Your task to perform on an android device: open app "PUBG MOBILE" (install if not already installed) and go to login screen Image 0: 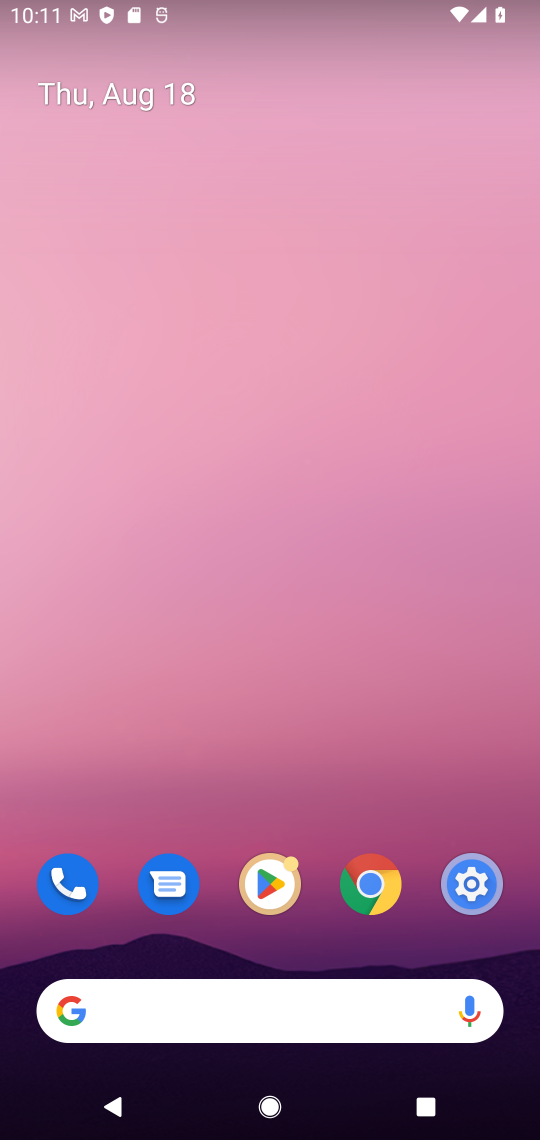
Step 0: drag from (295, 1011) to (371, 280)
Your task to perform on an android device: open app "PUBG MOBILE" (install if not already installed) and go to login screen Image 1: 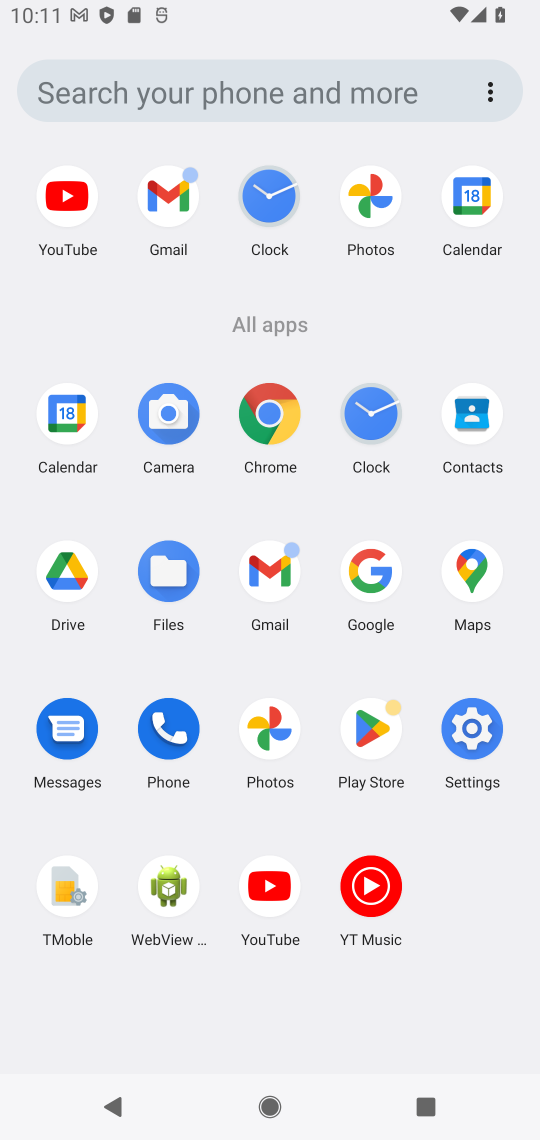
Step 1: click (382, 715)
Your task to perform on an android device: open app "PUBG MOBILE" (install if not already installed) and go to login screen Image 2: 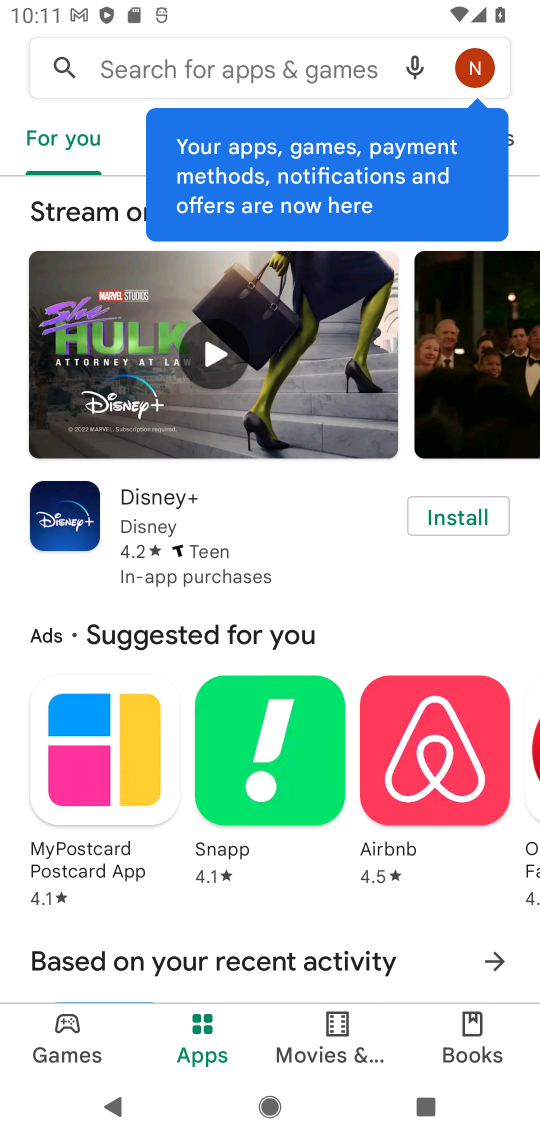
Step 2: click (317, 70)
Your task to perform on an android device: open app "PUBG MOBILE" (install if not already installed) and go to login screen Image 3: 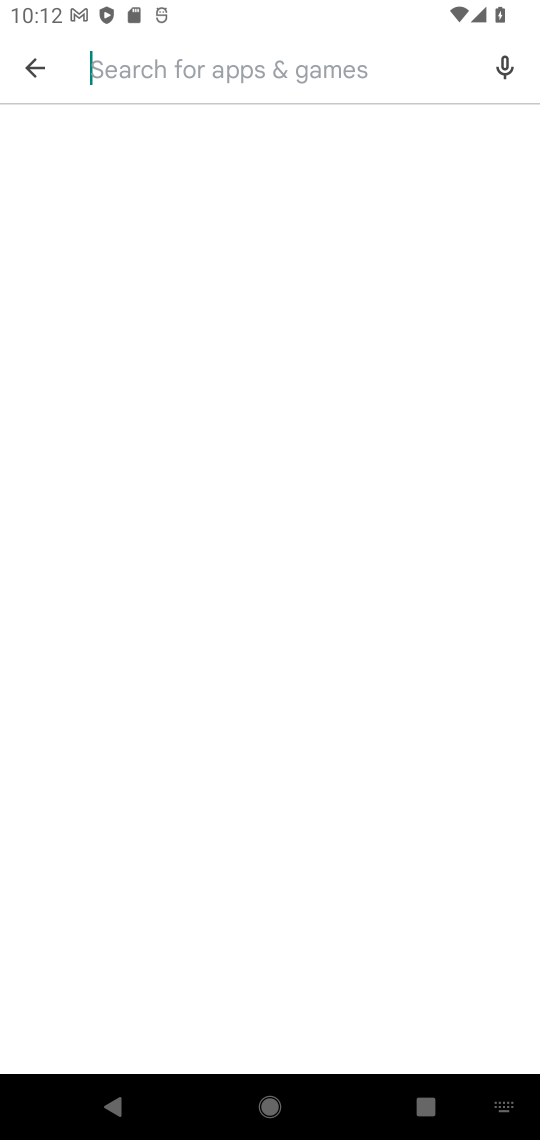
Step 3: type "PUBG MOBILE"
Your task to perform on an android device: open app "PUBG MOBILE" (install if not already installed) and go to login screen Image 4: 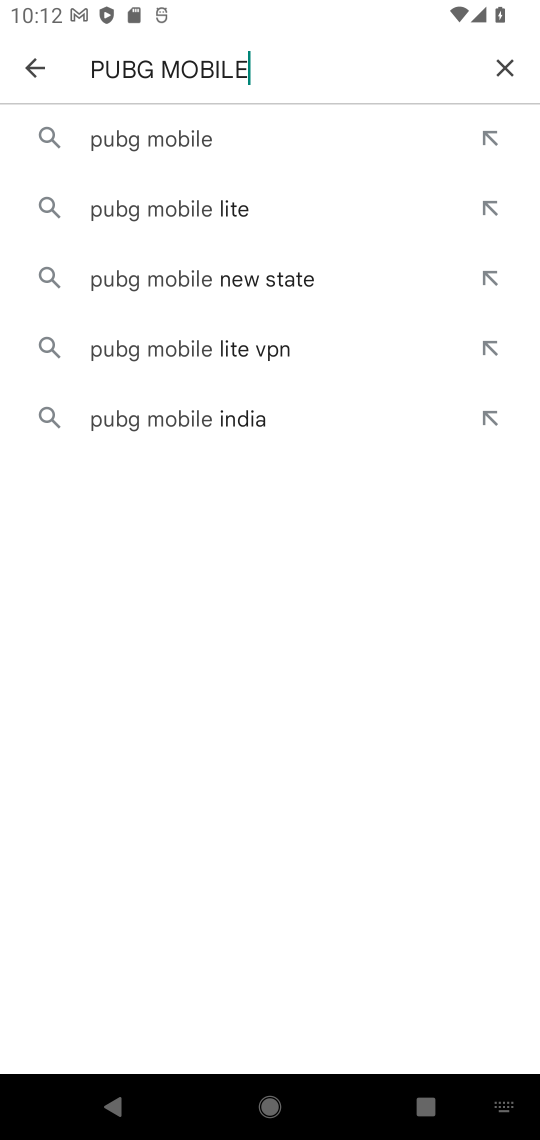
Step 4: click (191, 147)
Your task to perform on an android device: open app "PUBG MOBILE" (install if not already installed) and go to login screen Image 5: 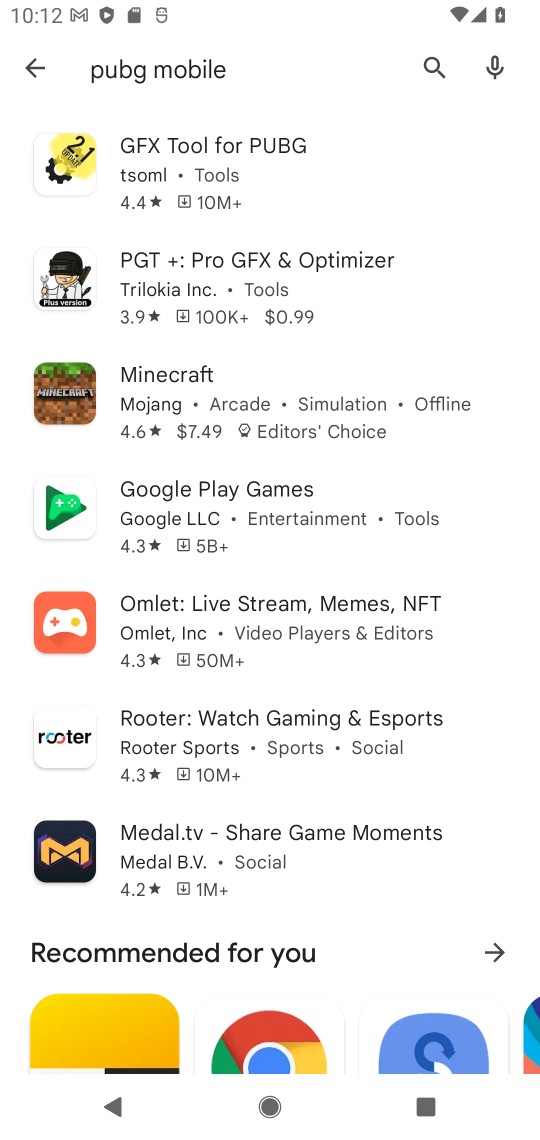
Step 5: task complete